Your task to perform on an android device: View the shopping cart on newegg.com. Add "razer blade" to the cart on newegg.com Image 0: 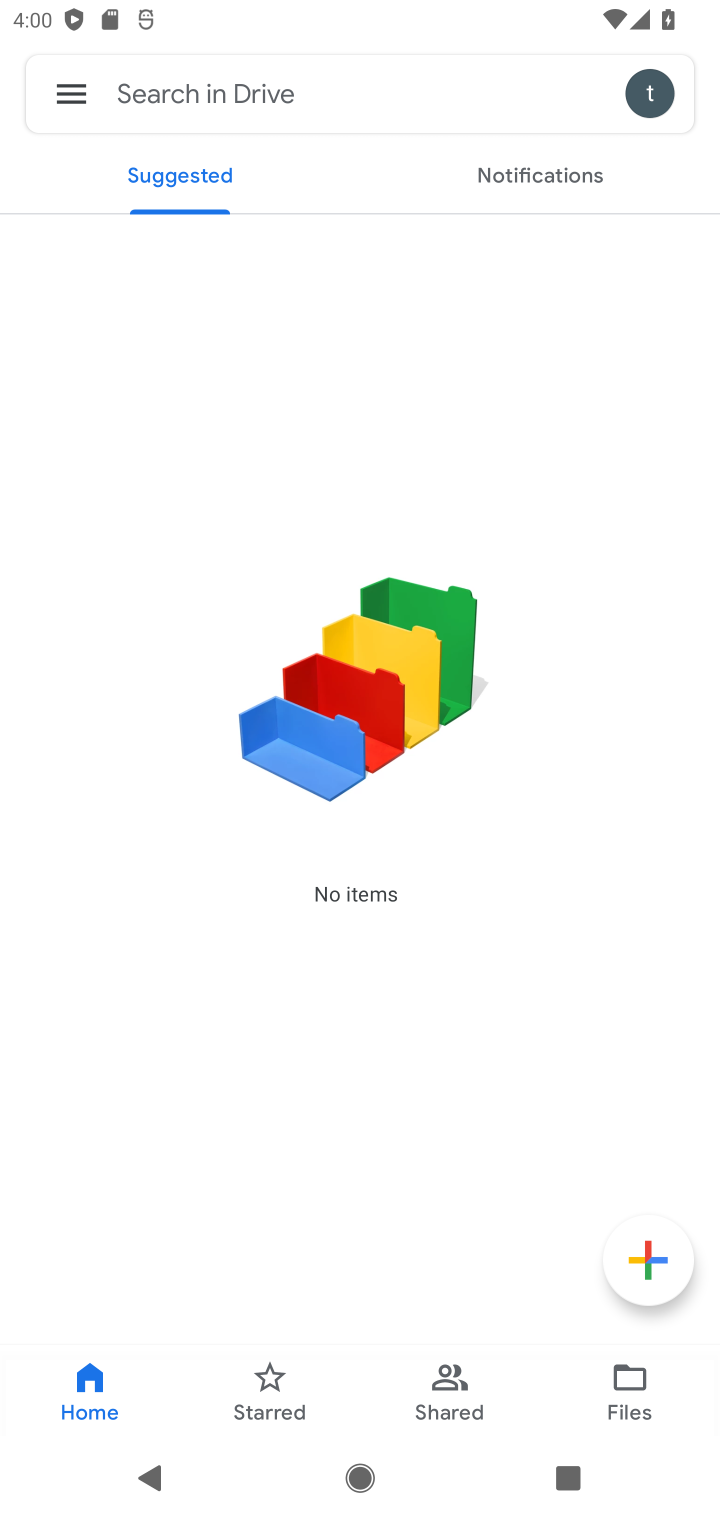
Step 0: press home button
Your task to perform on an android device: View the shopping cart on newegg.com. Add "razer blade" to the cart on newegg.com Image 1: 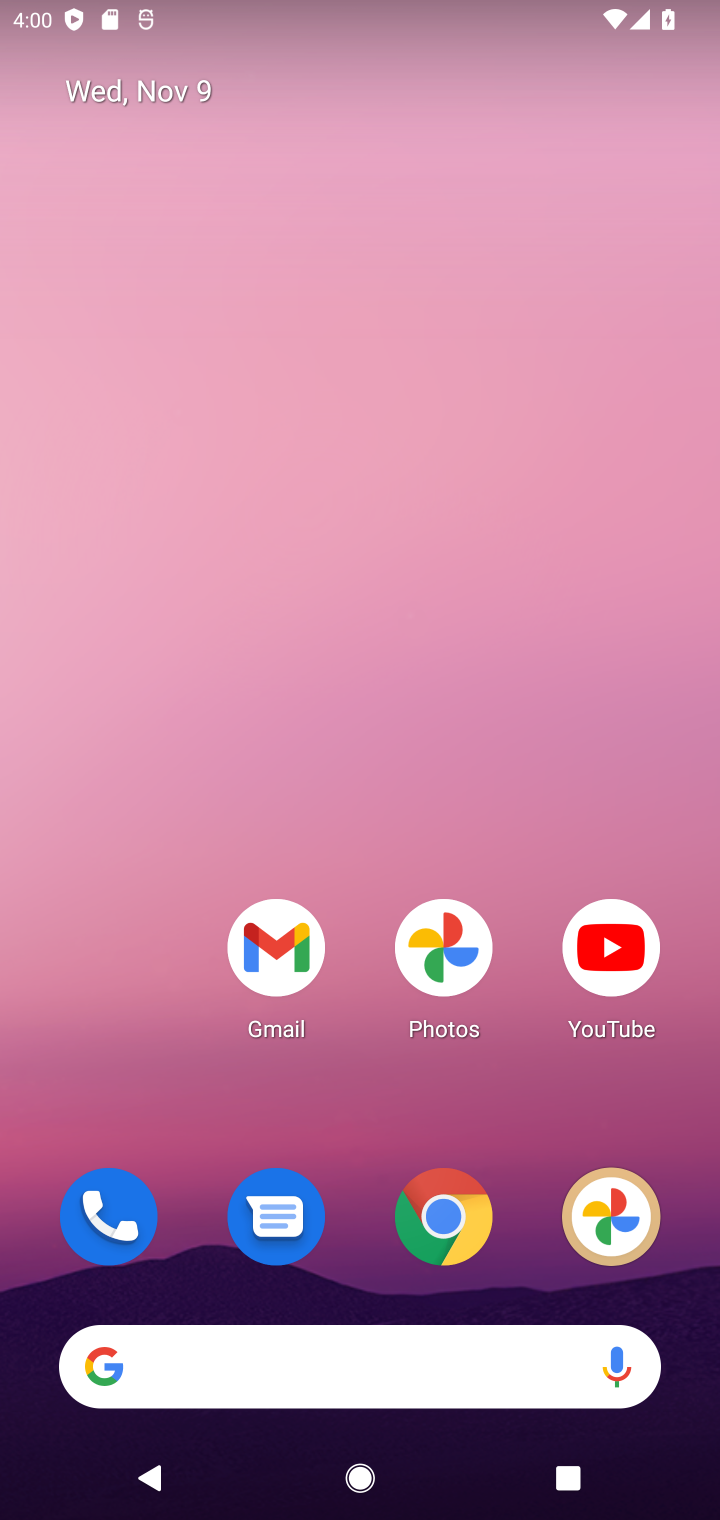
Step 1: drag from (353, 1242) to (259, 246)
Your task to perform on an android device: View the shopping cart on newegg.com. Add "razer blade" to the cart on newegg.com Image 2: 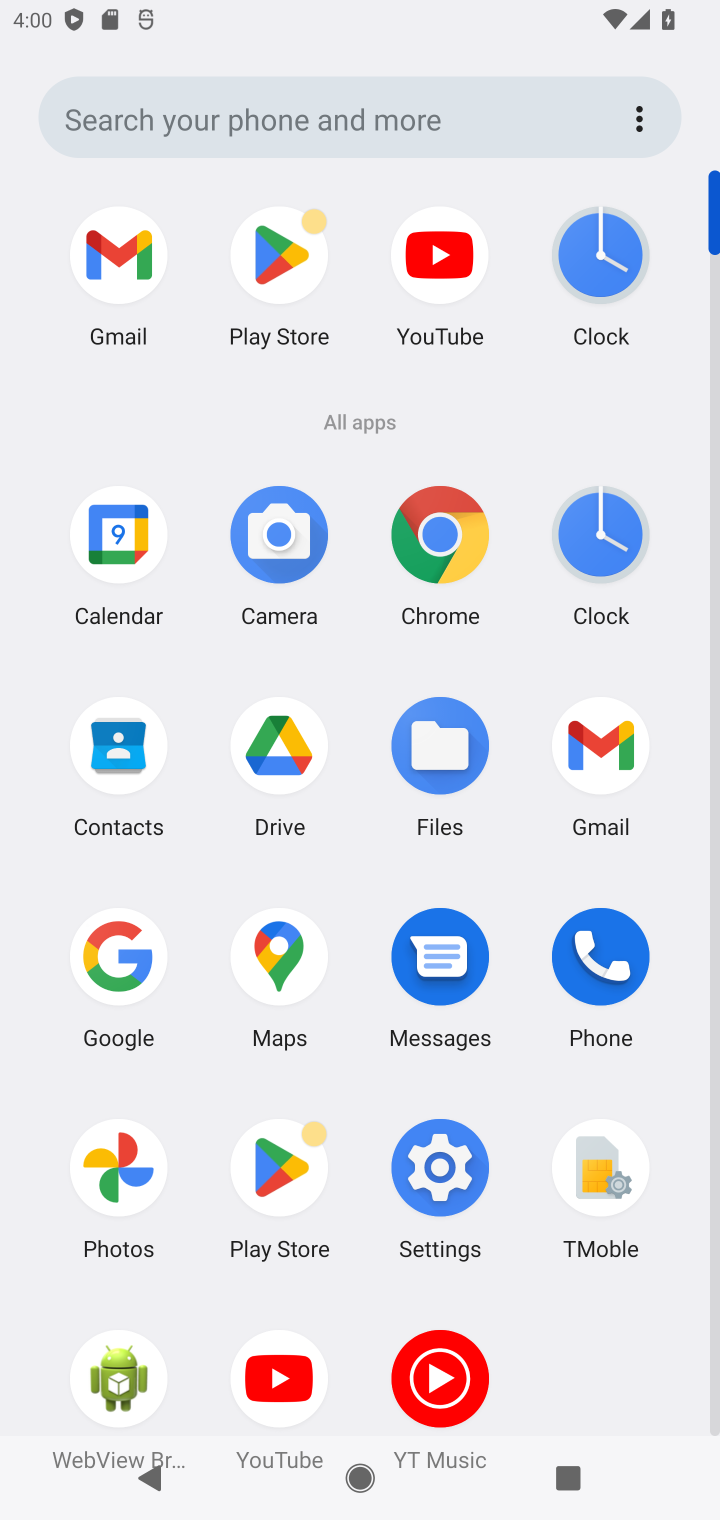
Step 2: click (426, 523)
Your task to perform on an android device: View the shopping cart on newegg.com. Add "razer blade" to the cart on newegg.com Image 3: 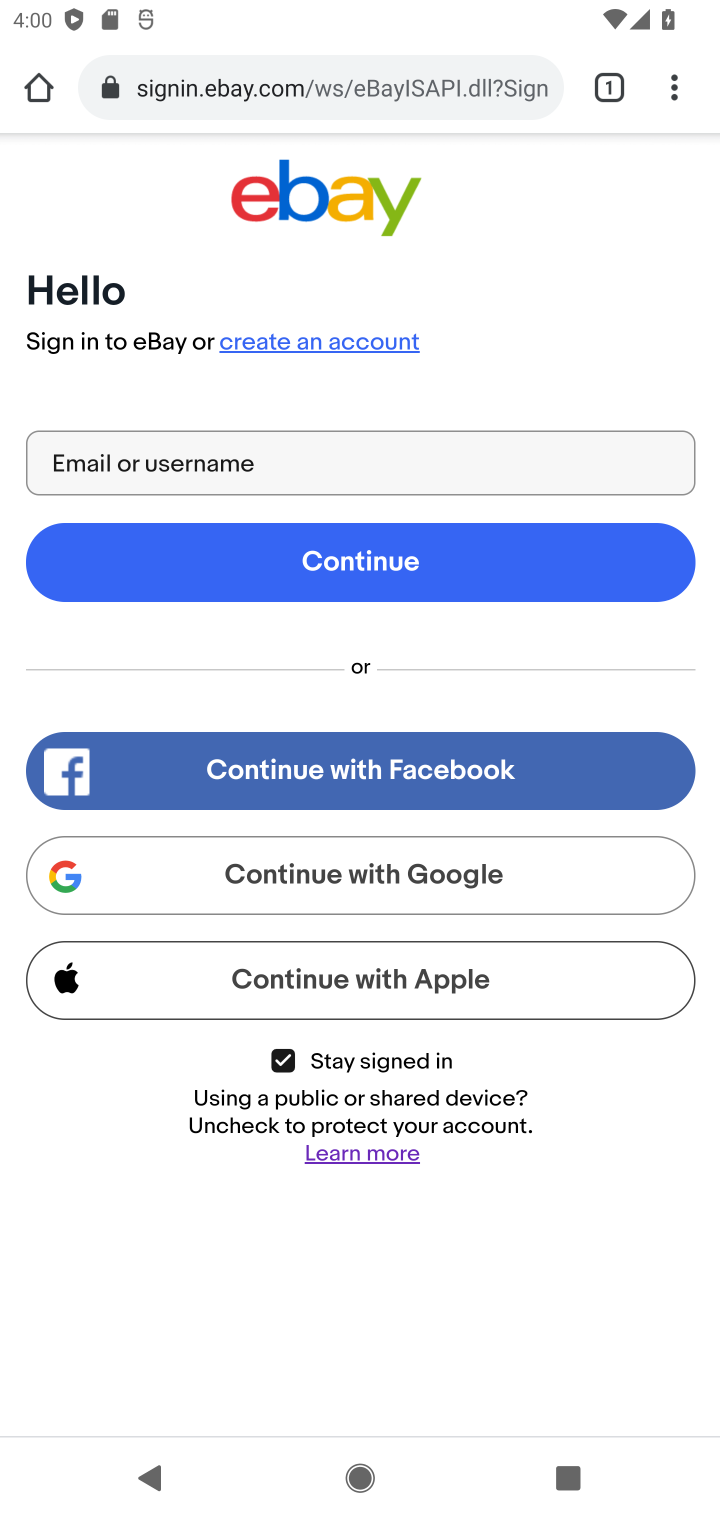
Step 3: click (344, 96)
Your task to perform on an android device: View the shopping cart on newegg.com. Add "razer blade" to the cart on newegg.com Image 4: 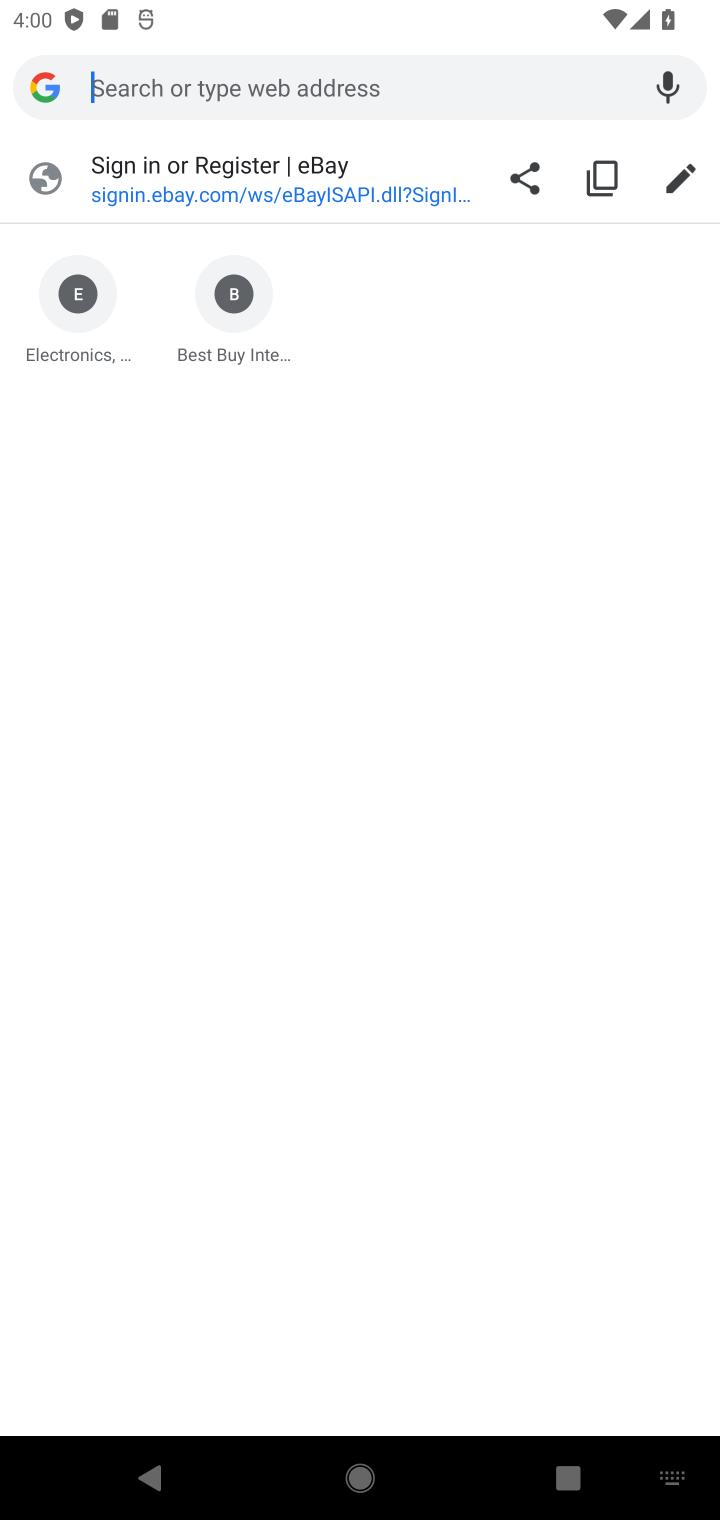
Step 4: type "newegg.com"
Your task to perform on an android device: View the shopping cart on newegg.com. Add "razer blade" to the cart on newegg.com Image 5: 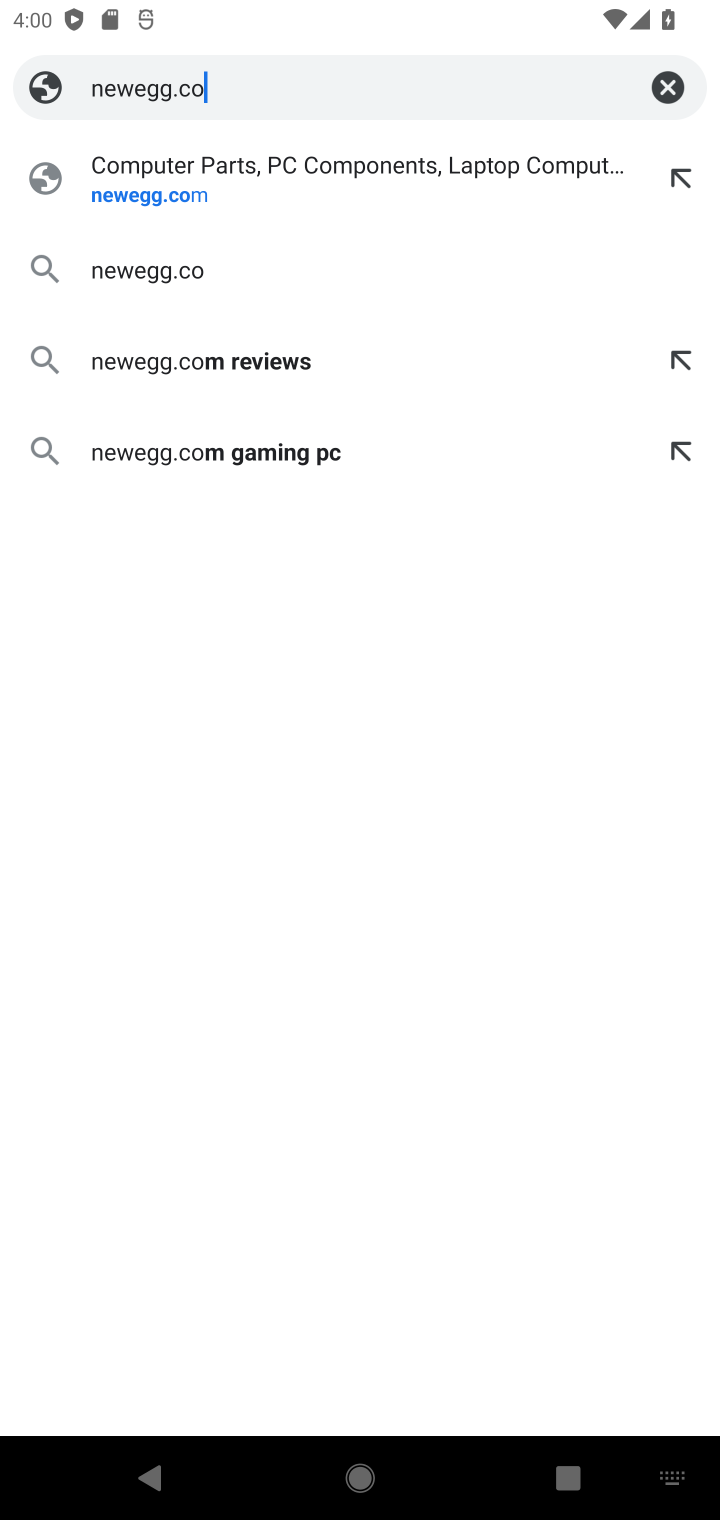
Step 5: press enter
Your task to perform on an android device: View the shopping cart on newegg.com. Add "razer blade" to the cart on newegg.com Image 6: 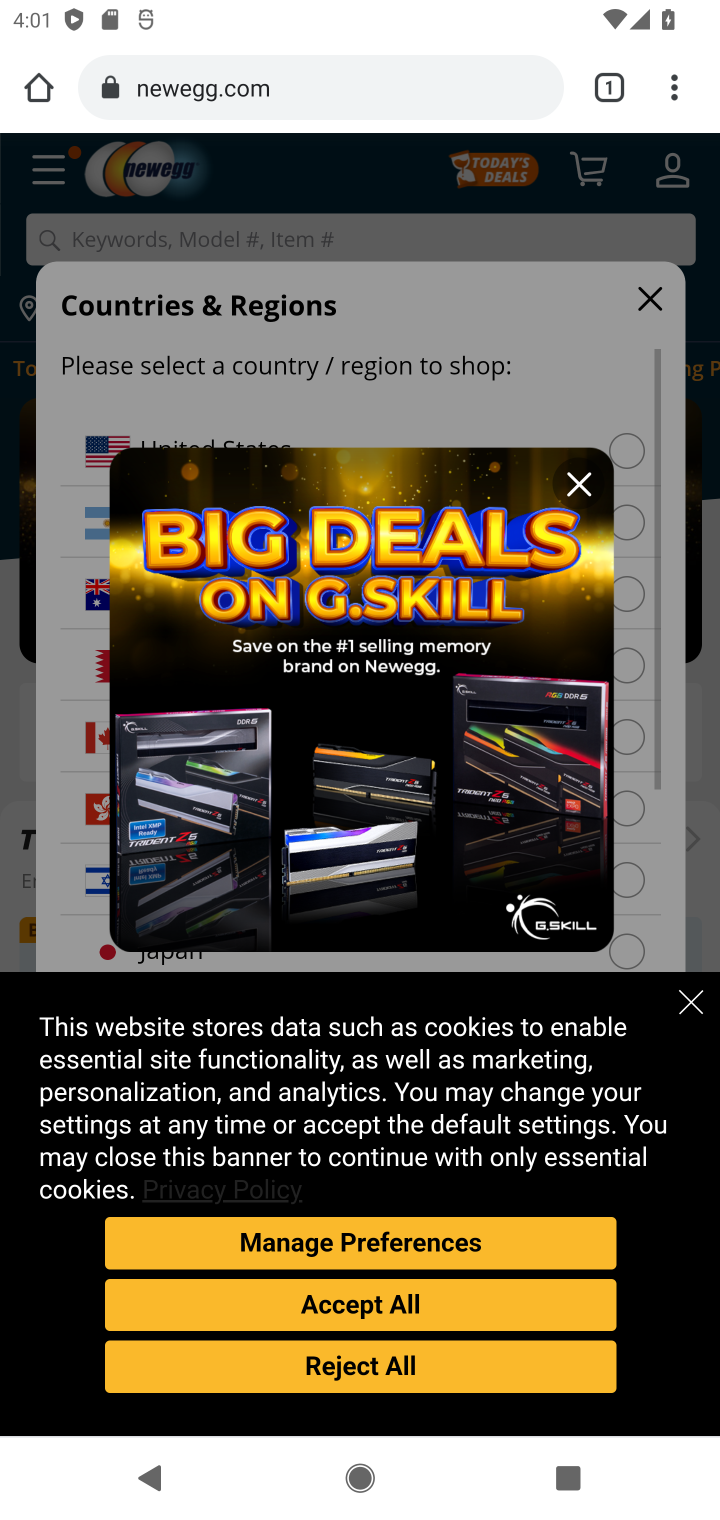
Step 6: click (638, 282)
Your task to perform on an android device: View the shopping cart on newegg.com. Add "razer blade" to the cart on newegg.com Image 7: 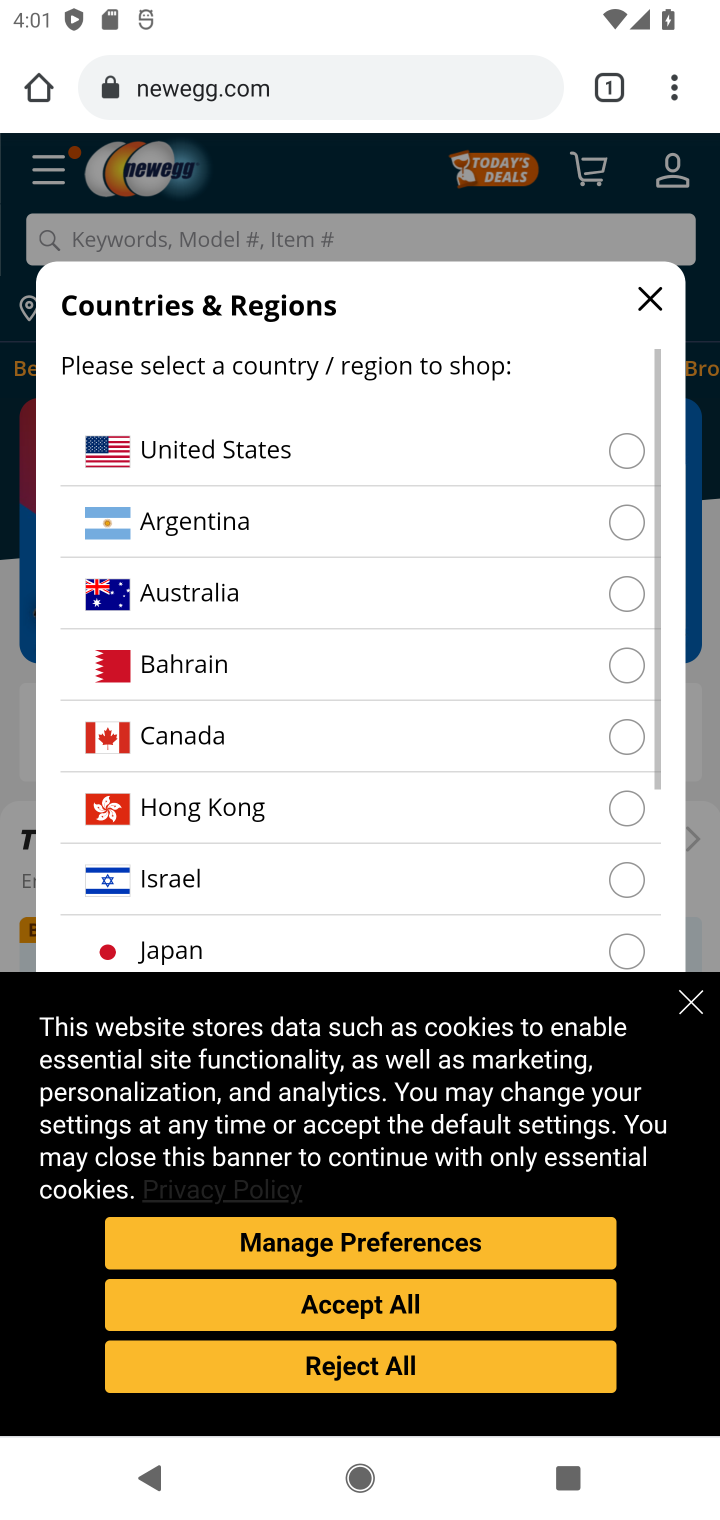
Step 7: click (446, 1313)
Your task to perform on an android device: View the shopping cart on newegg.com. Add "razer blade" to the cart on newegg.com Image 8: 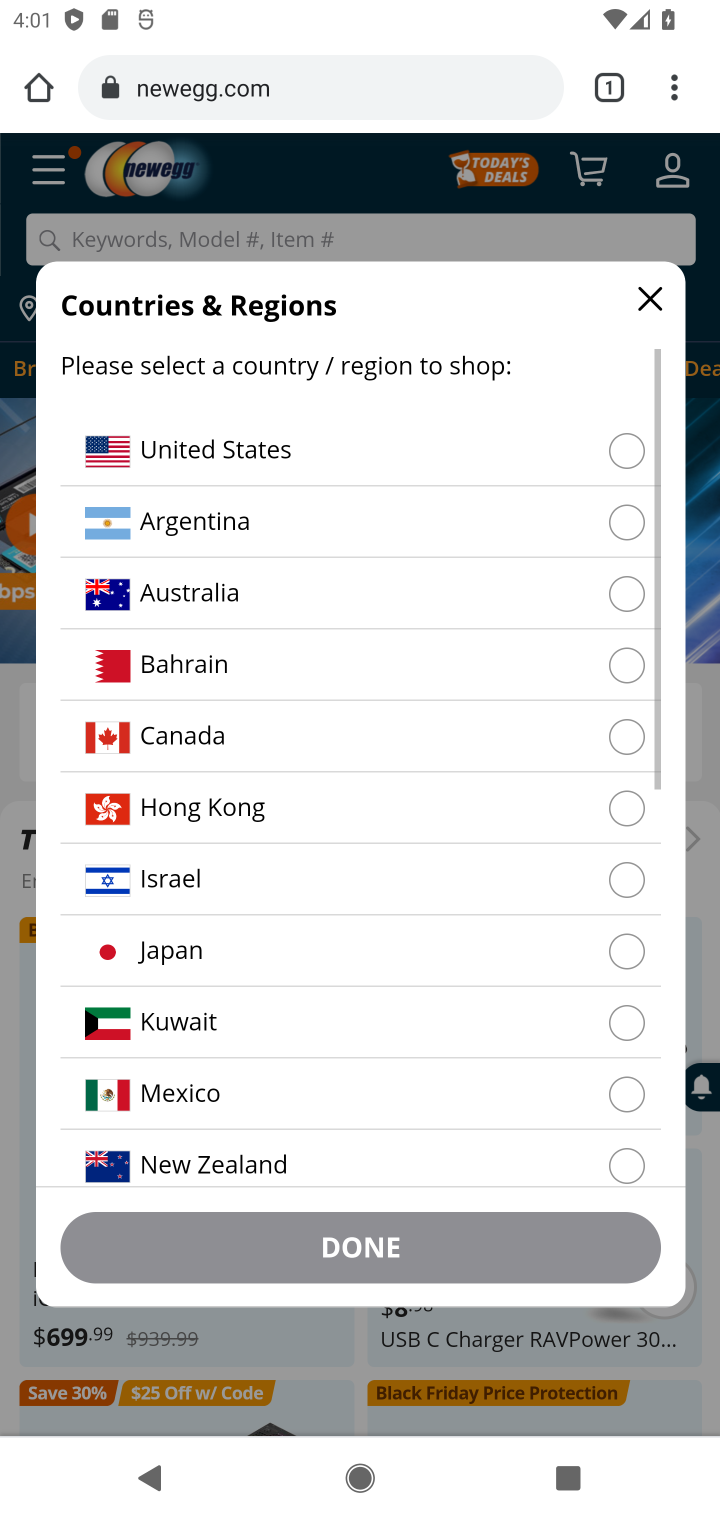
Step 8: click (642, 293)
Your task to perform on an android device: View the shopping cart on newegg.com. Add "razer blade" to the cart on newegg.com Image 9: 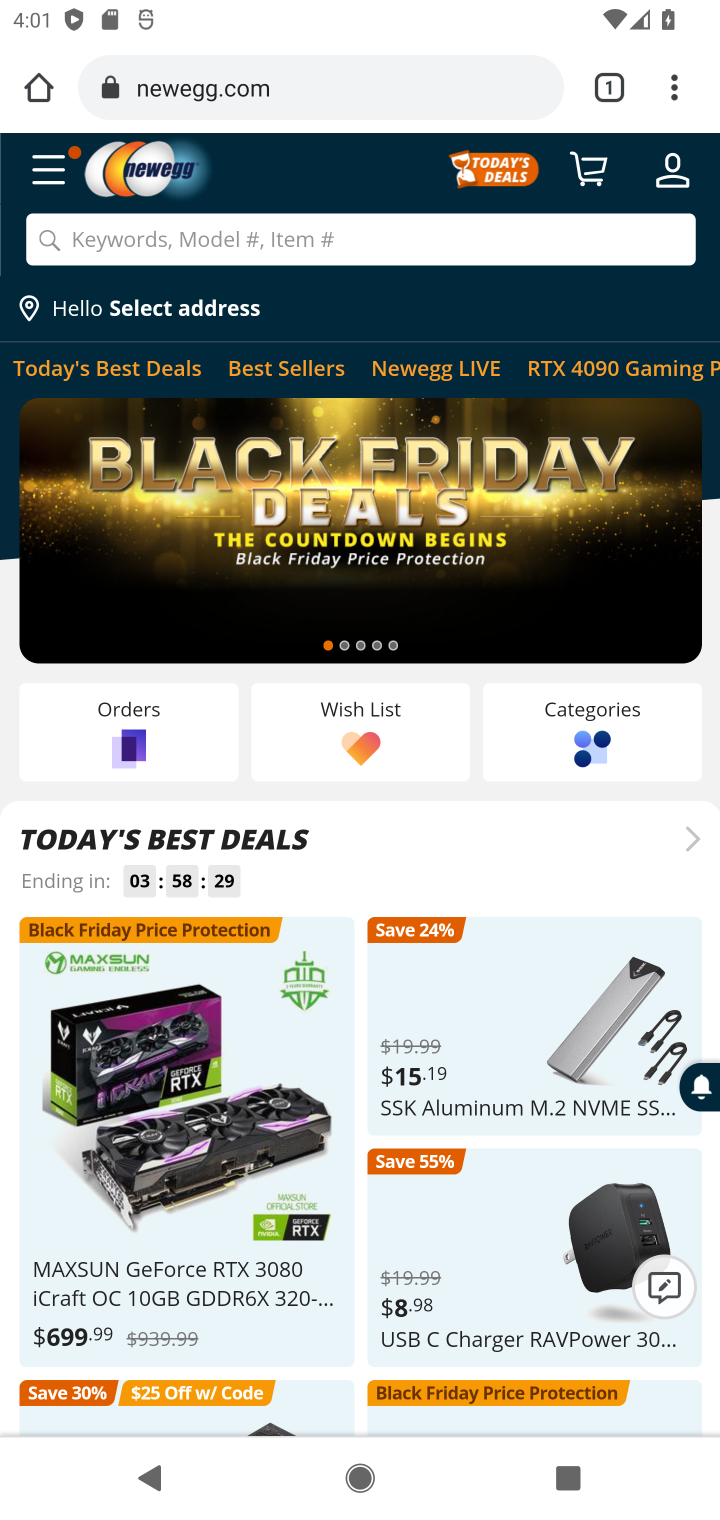
Step 9: click (588, 167)
Your task to perform on an android device: View the shopping cart on newegg.com. Add "razer blade" to the cart on newegg.com Image 10: 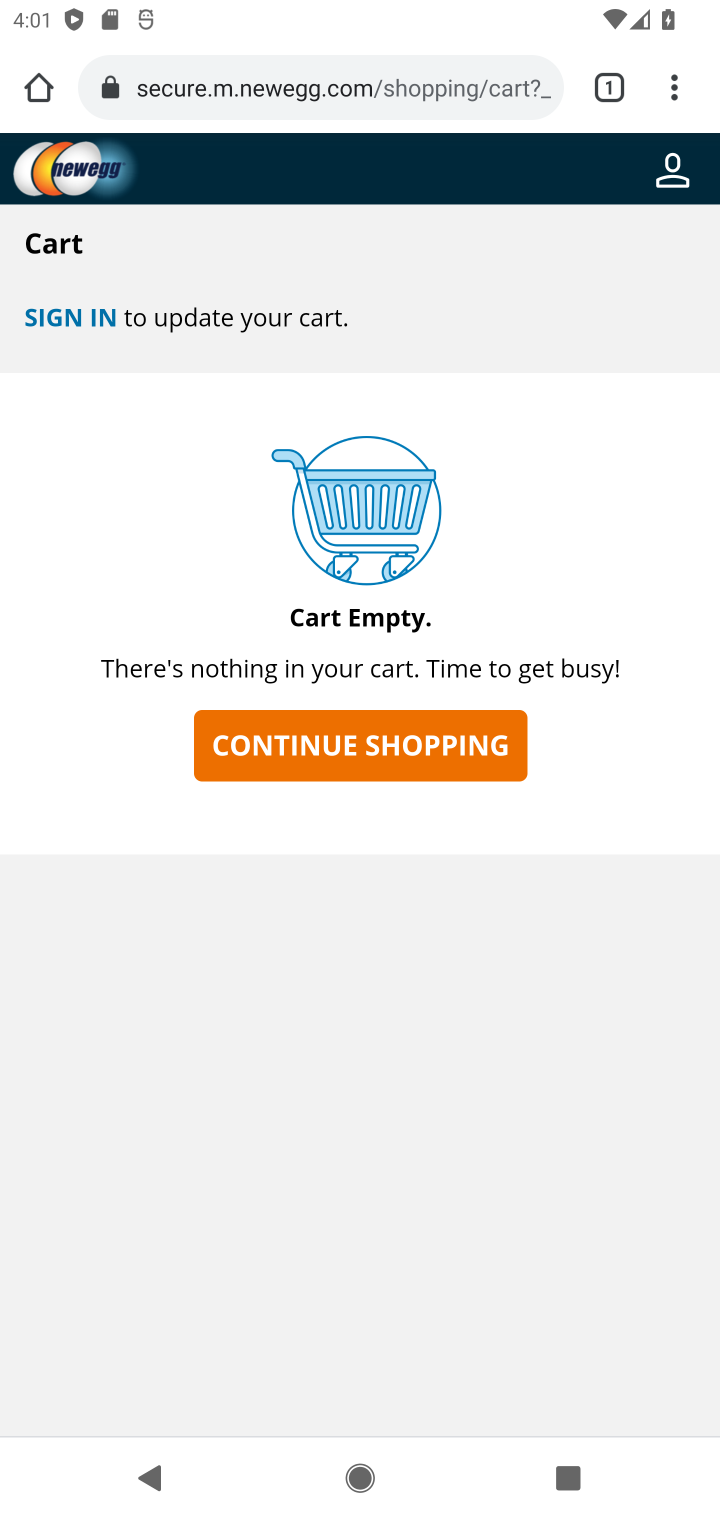
Step 10: click (416, 745)
Your task to perform on an android device: View the shopping cart on newegg.com. Add "razer blade" to the cart on newegg.com Image 11: 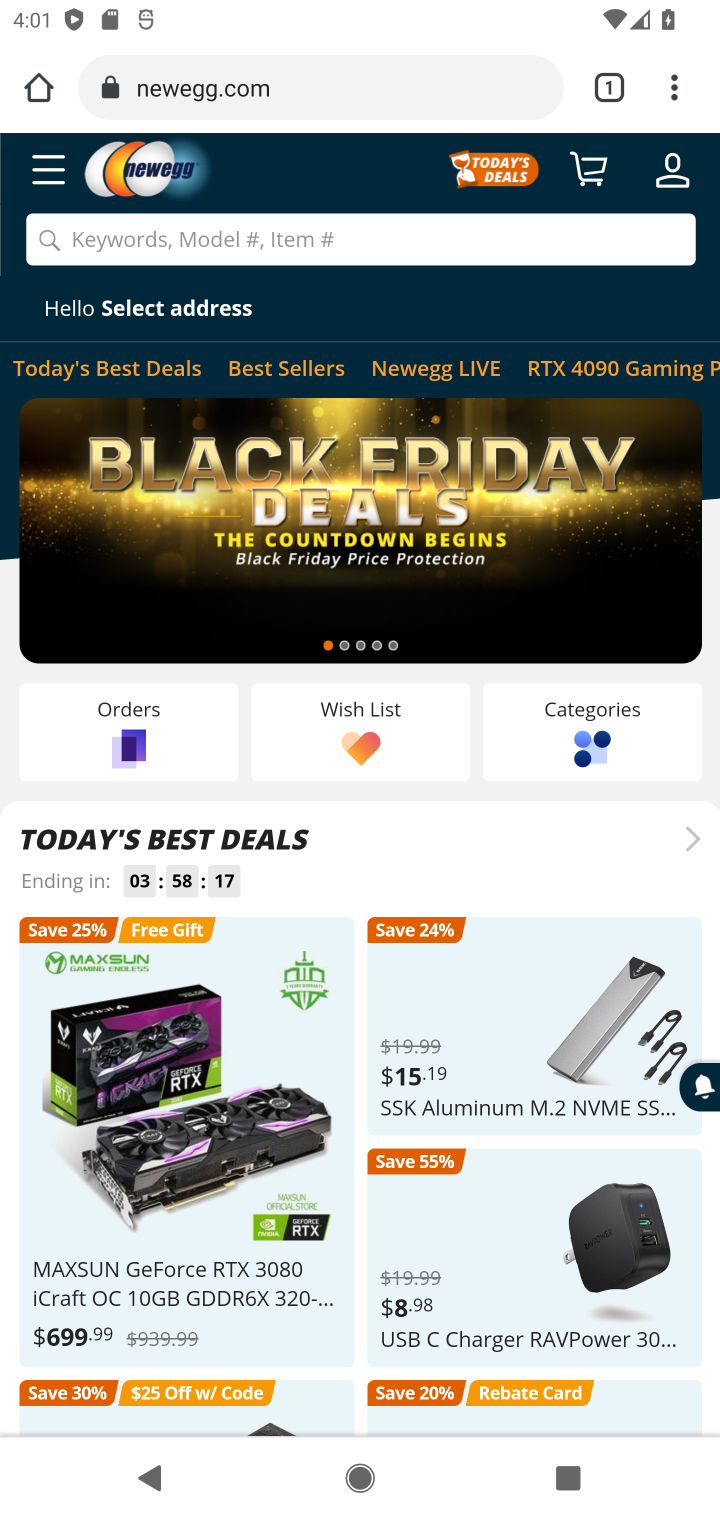
Step 11: click (490, 238)
Your task to perform on an android device: View the shopping cart on newegg.com. Add "razer blade" to the cart on newegg.com Image 12: 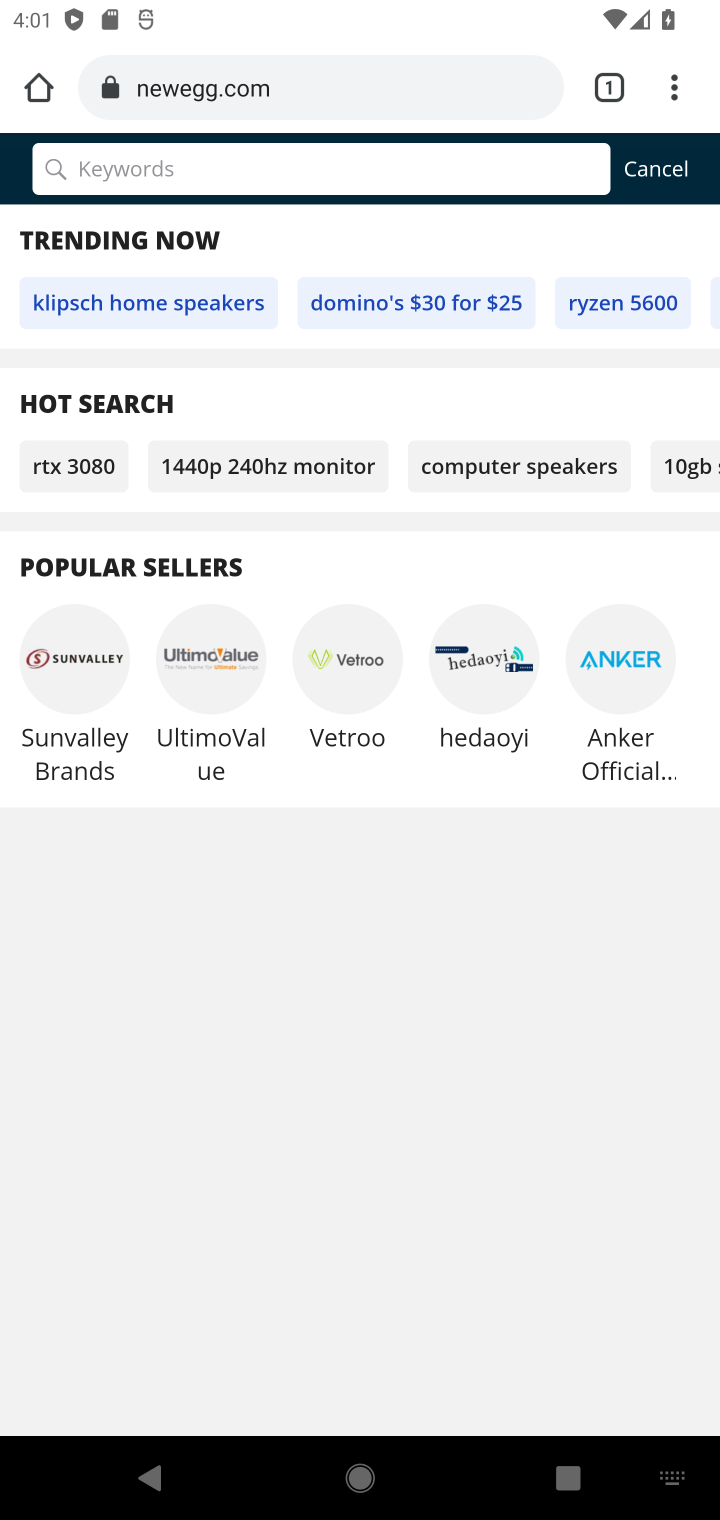
Step 12: type "razer blade"
Your task to perform on an android device: View the shopping cart on newegg.com. Add "razer blade" to the cart on newegg.com Image 13: 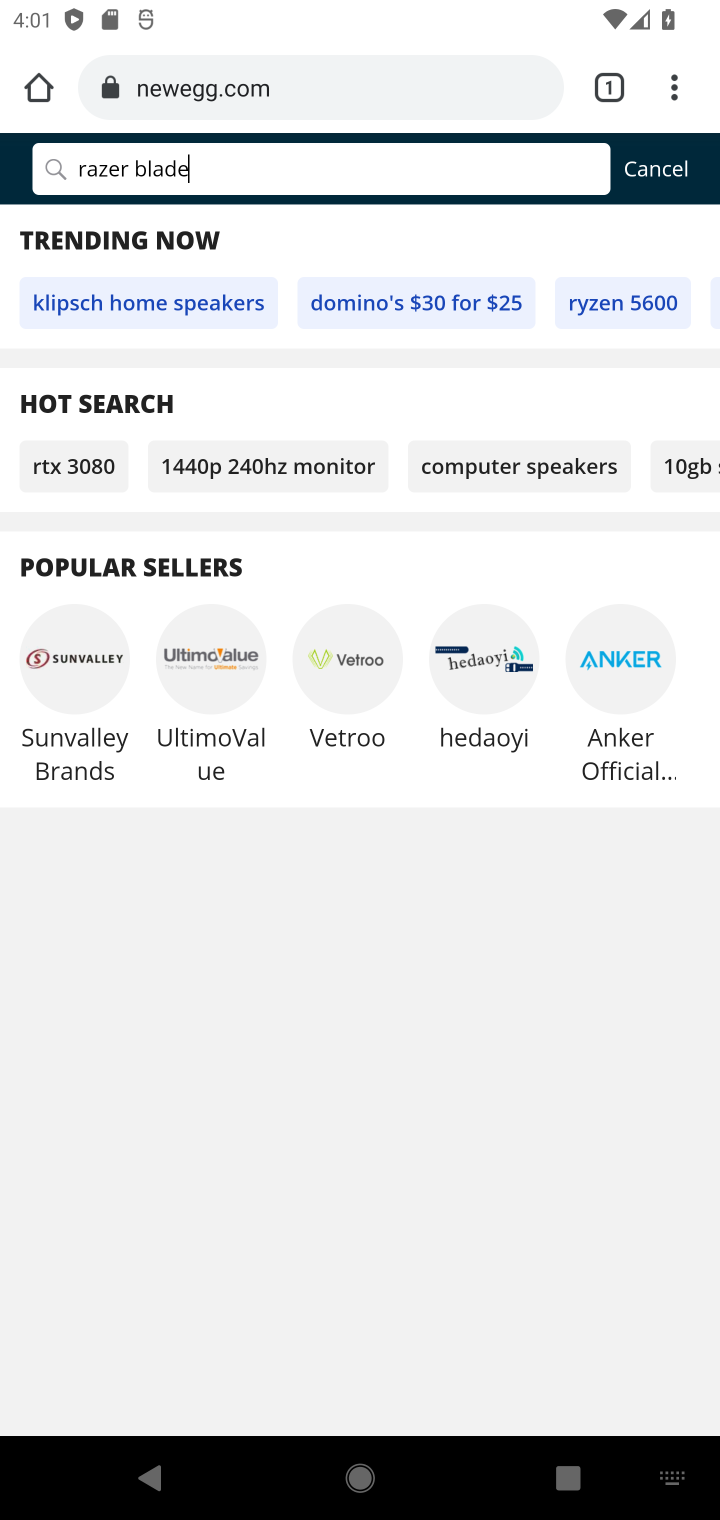
Step 13: press enter
Your task to perform on an android device: View the shopping cart on newegg.com. Add "razer blade" to the cart on newegg.com Image 14: 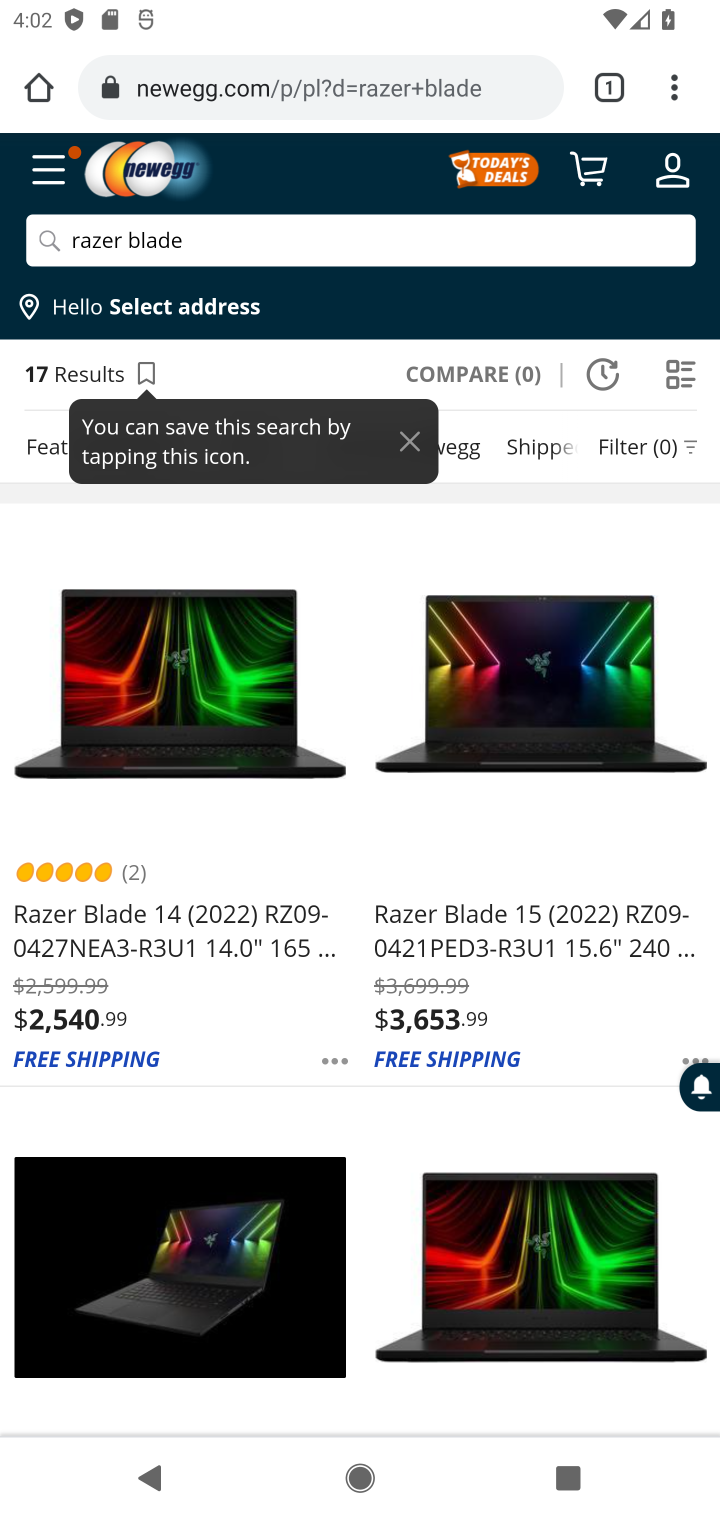
Step 14: click (244, 940)
Your task to perform on an android device: View the shopping cart on newegg.com. Add "razer blade" to the cart on newegg.com Image 15: 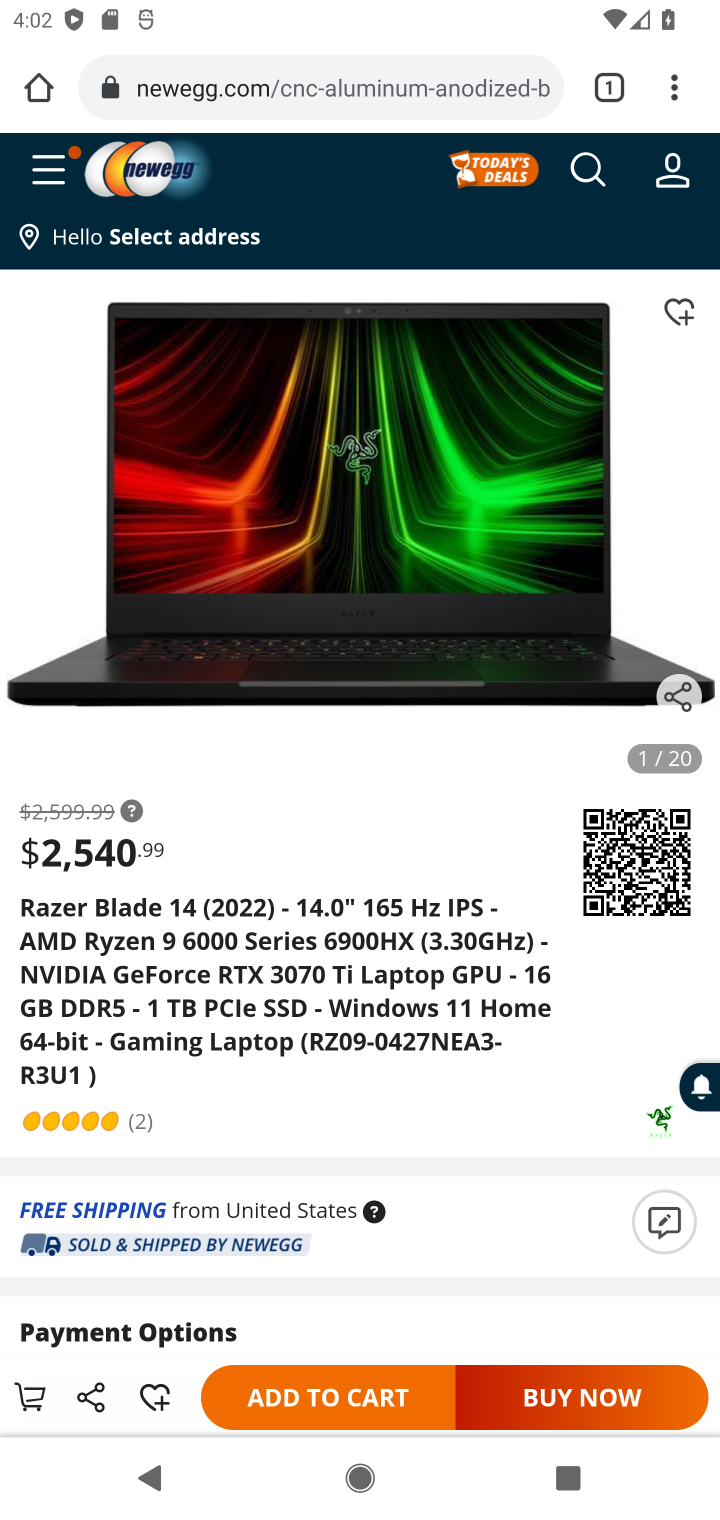
Step 15: click (270, 1405)
Your task to perform on an android device: View the shopping cart on newegg.com. Add "razer blade" to the cart on newegg.com Image 16: 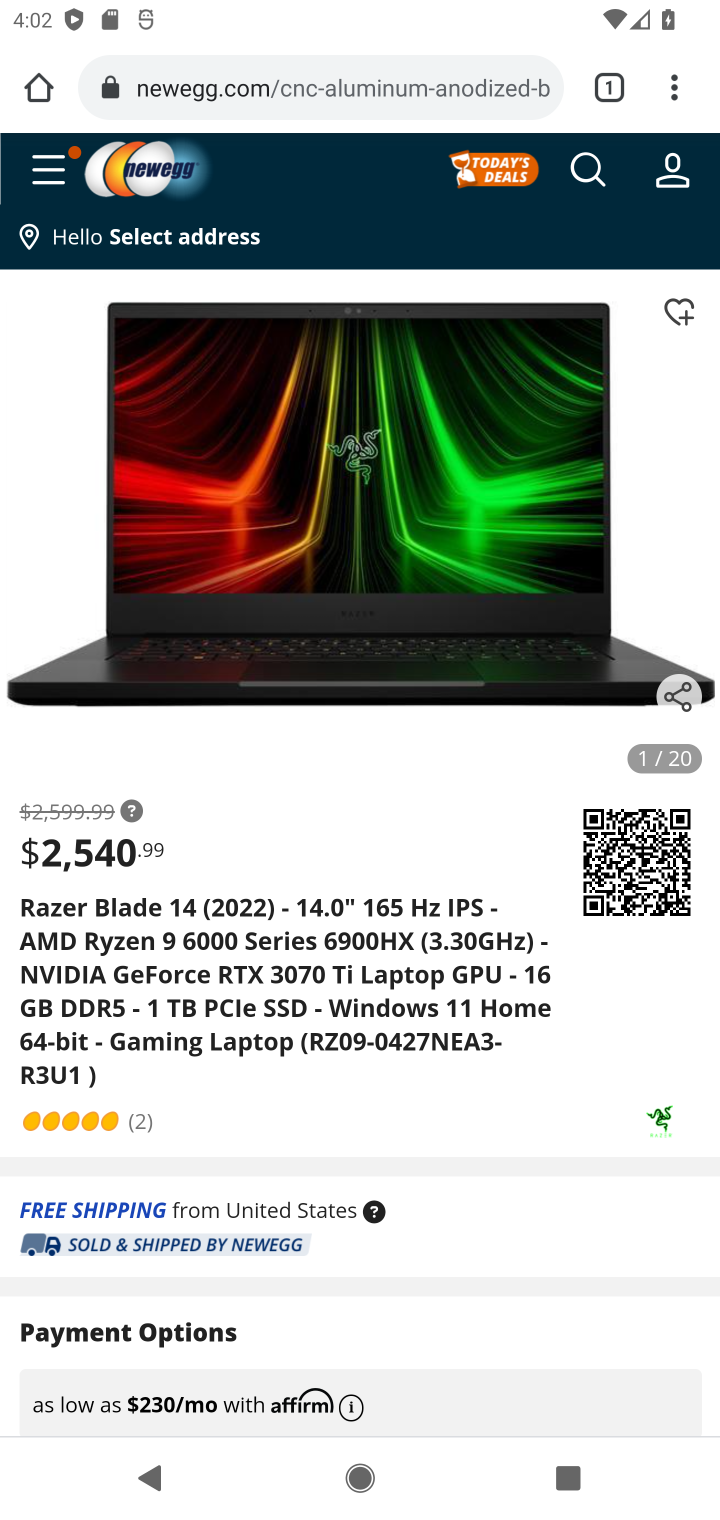
Step 16: drag from (393, 1118) to (440, 581)
Your task to perform on an android device: View the shopping cart on newegg.com. Add "razer blade" to the cart on newegg.com Image 17: 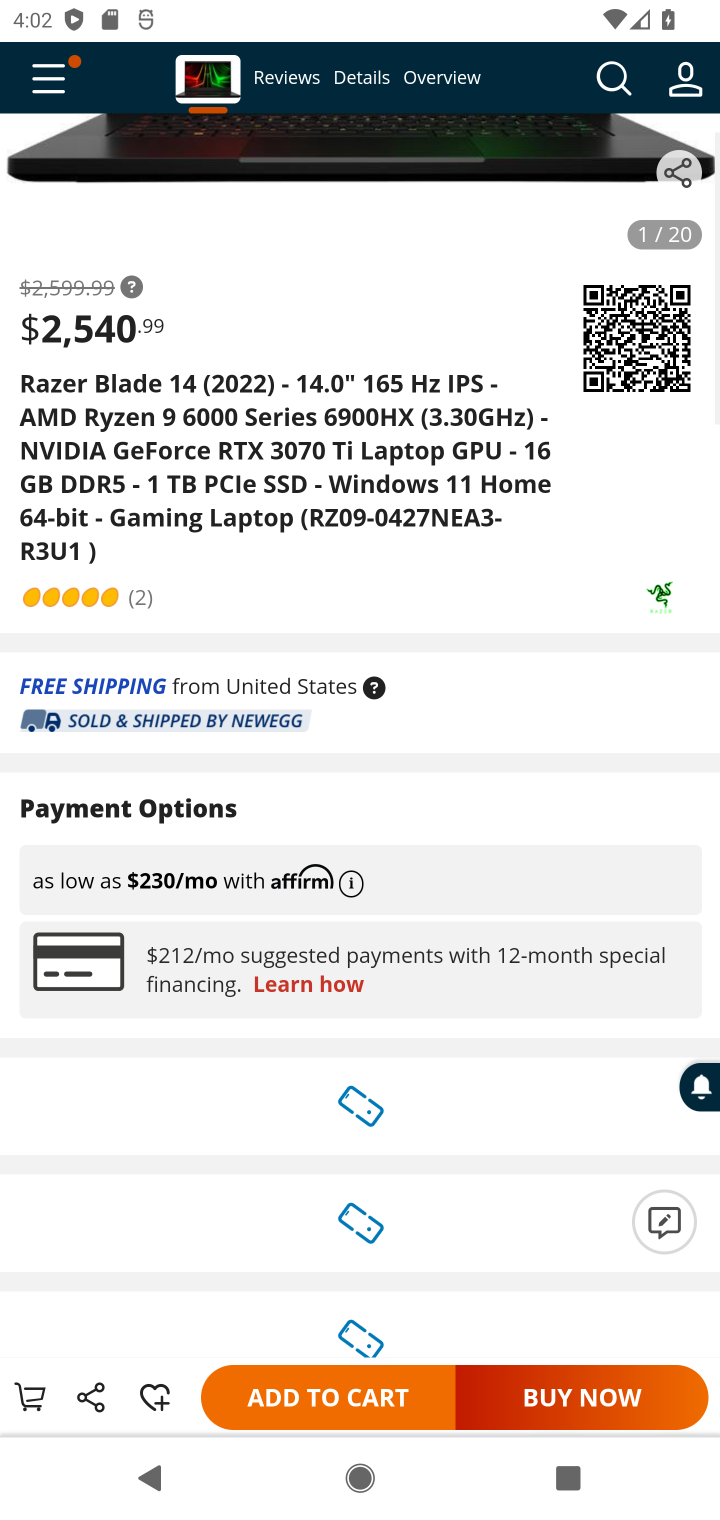
Step 17: click (325, 1381)
Your task to perform on an android device: View the shopping cart on newegg.com. Add "razer blade" to the cart on newegg.com Image 18: 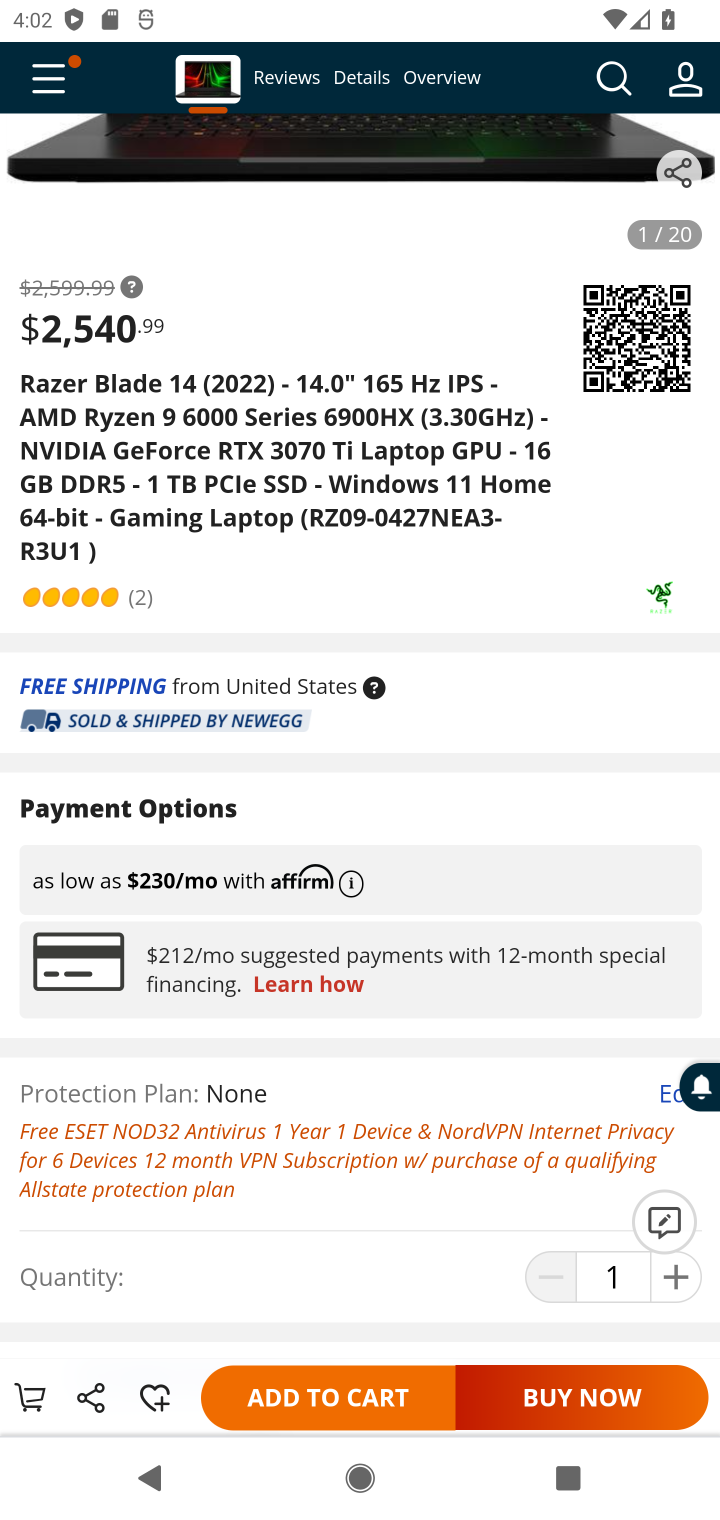
Step 18: click (346, 1391)
Your task to perform on an android device: View the shopping cart on newegg.com. Add "razer blade" to the cart on newegg.com Image 19: 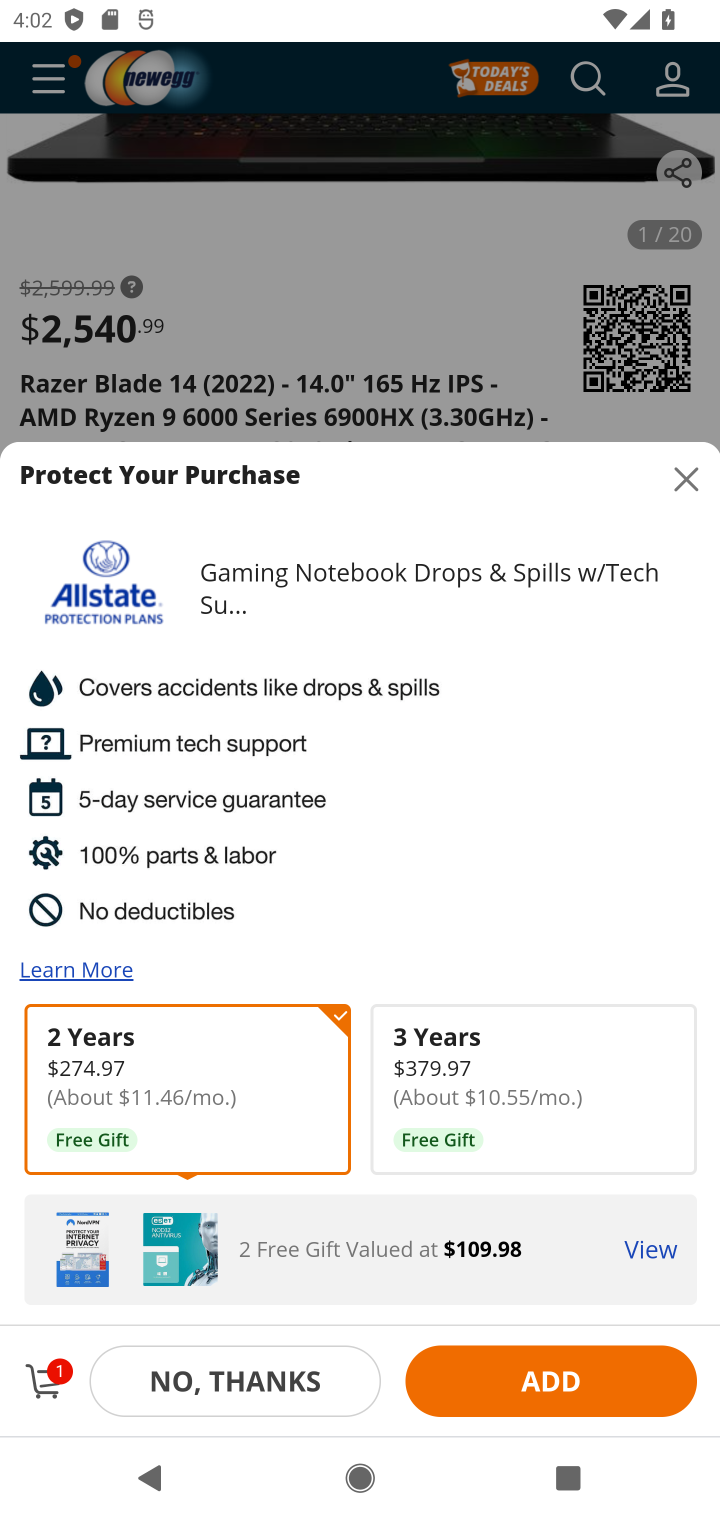
Step 19: task complete